Your task to perform on an android device: open app "Viber Messenger" (install if not already installed) Image 0: 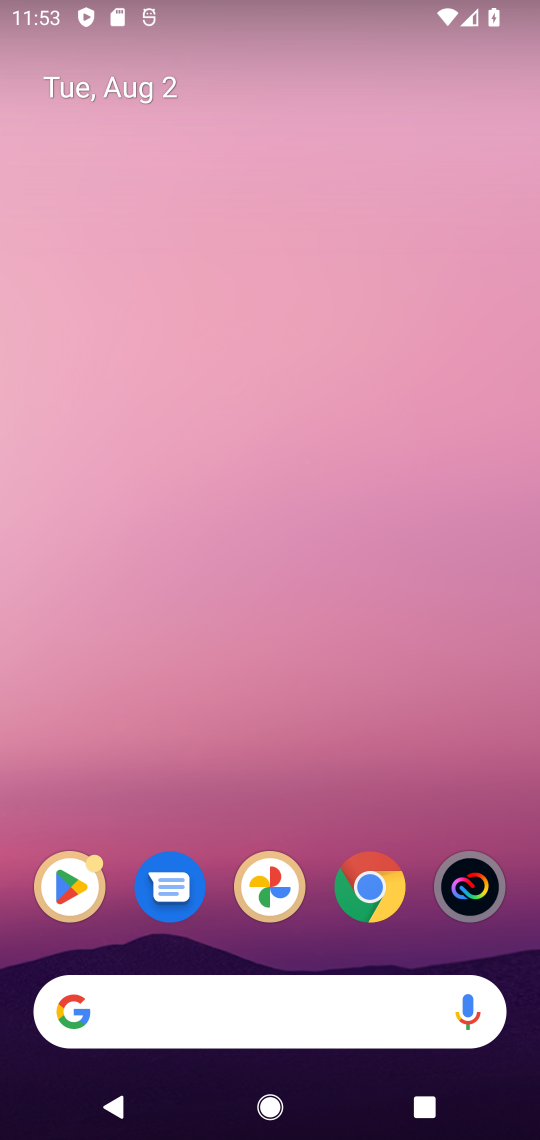
Step 0: click (79, 889)
Your task to perform on an android device: open app "Viber Messenger" (install if not already installed) Image 1: 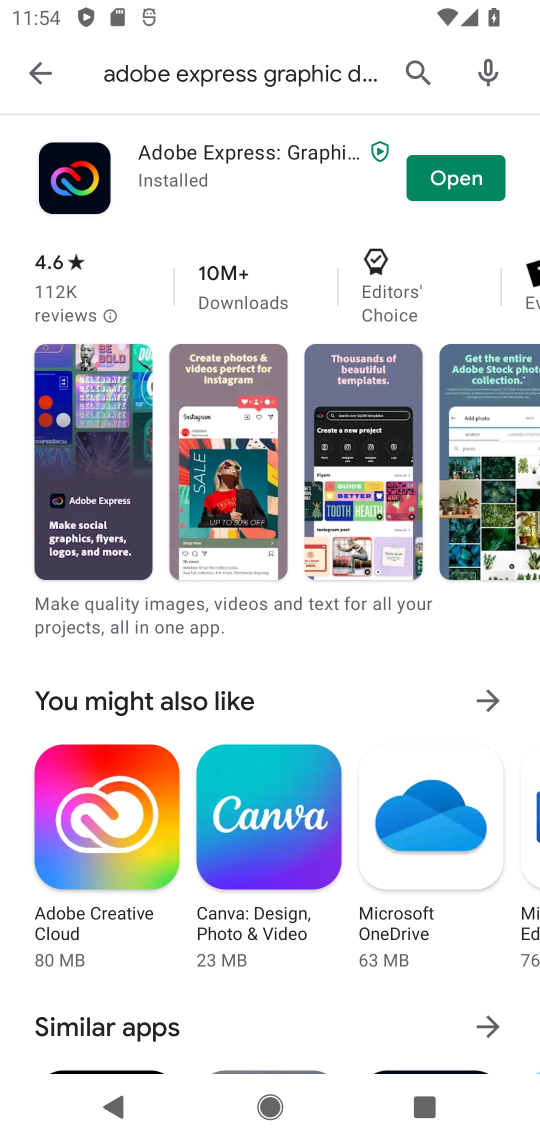
Step 1: click (420, 59)
Your task to perform on an android device: open app "Viber Messenger" (install if not already installed) Image 2: 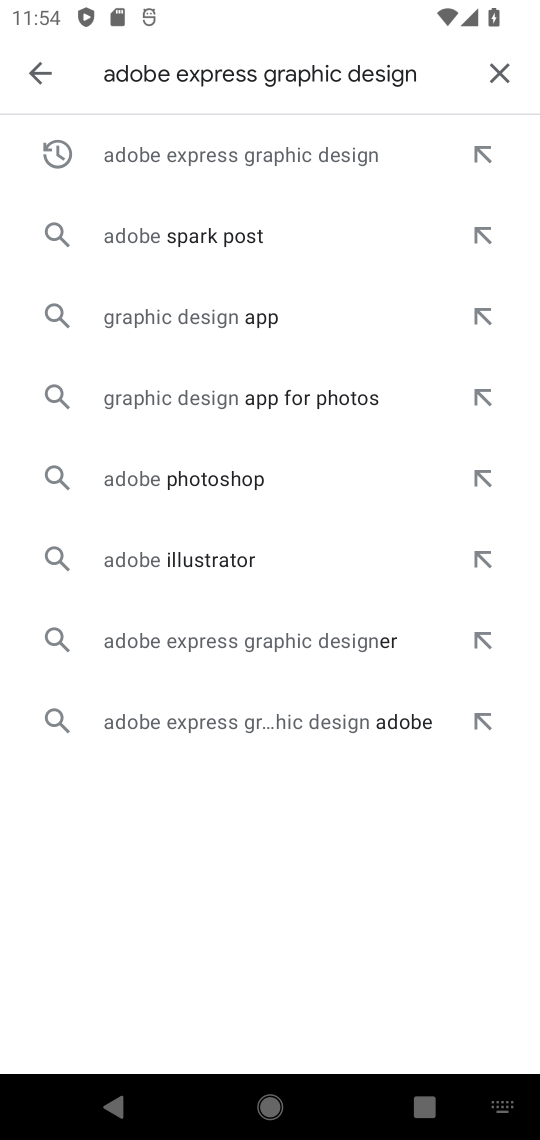
Step 2: click (500, 73)
Your task to perform on an android device: open app "Viber Messenger" (install if not already installed) Image 3: 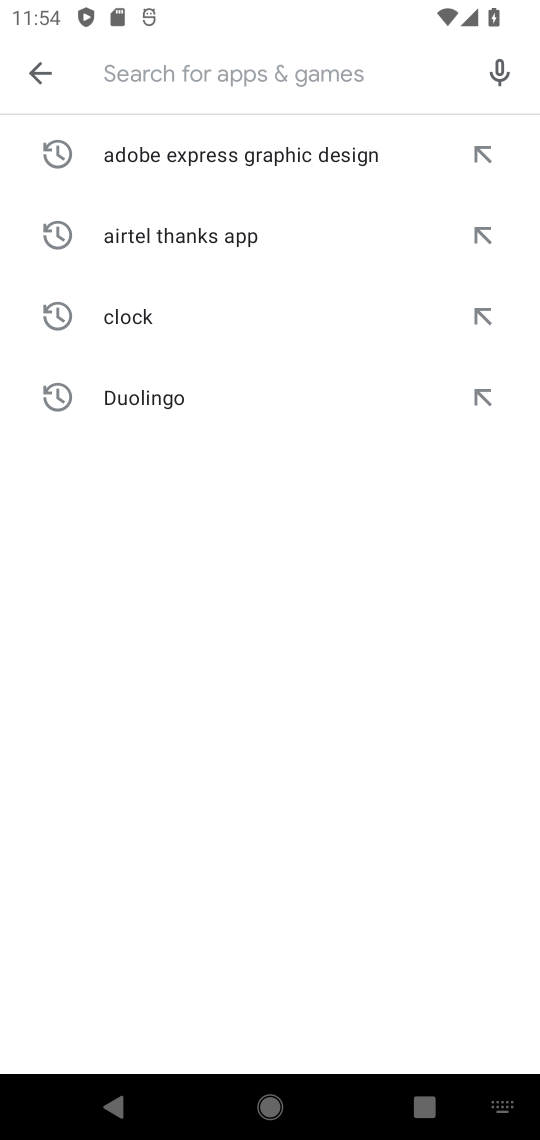
Step 3: type "viber messenger "
Your task to perform on an android device: open app "Viber Messenger" (install if not already installed) Image 4: 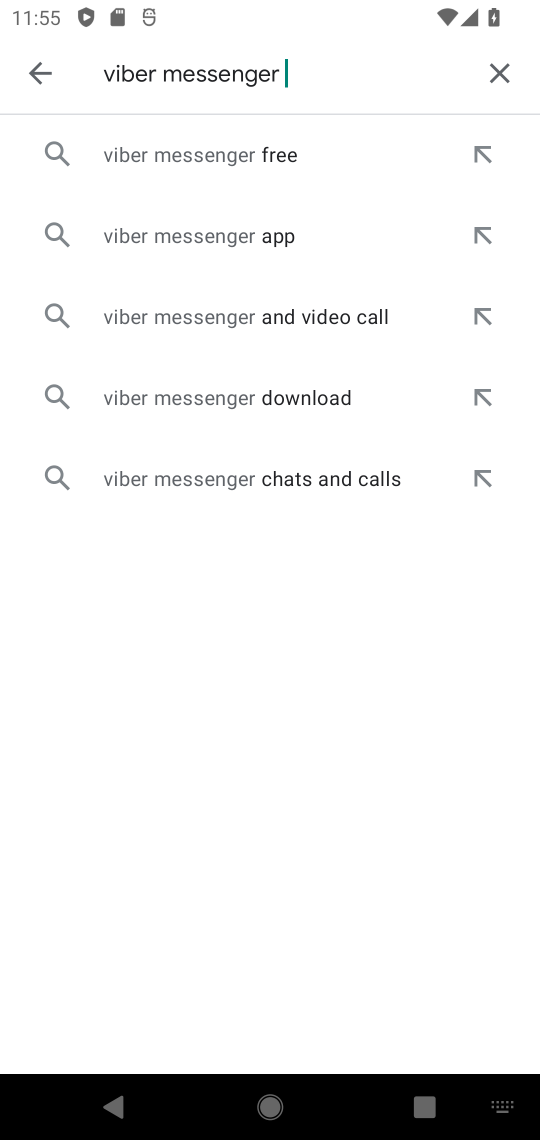
Step 4: press enter
Your task to perform on an android device: open app "Viber Messenger" (install if not already installed) Image 5: 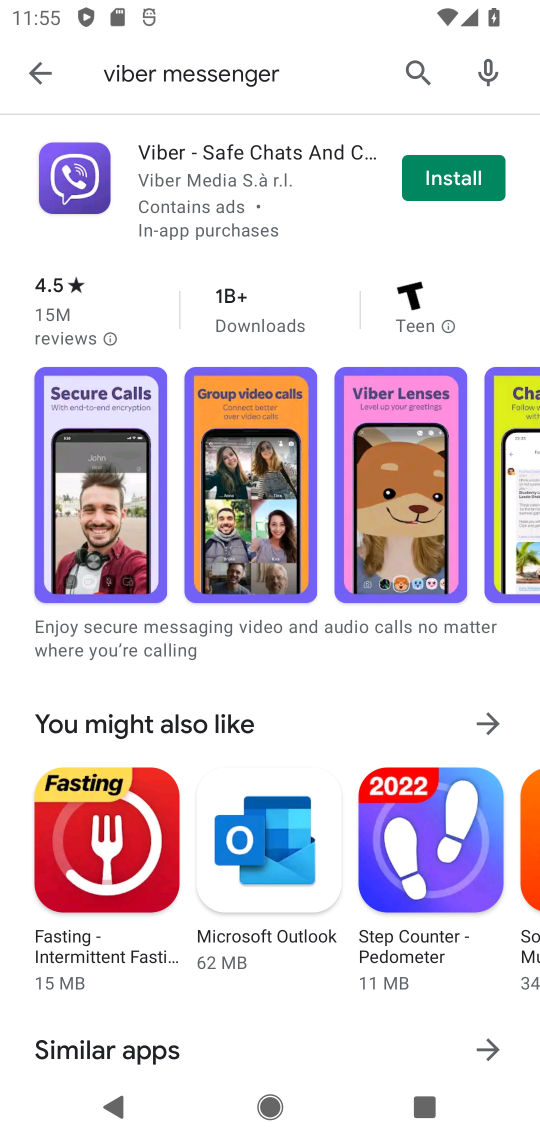
Step 5: click (437, 172)
Your task to perform on an android device: open app "Viber Messenger" (install if not already installed) Image 6: 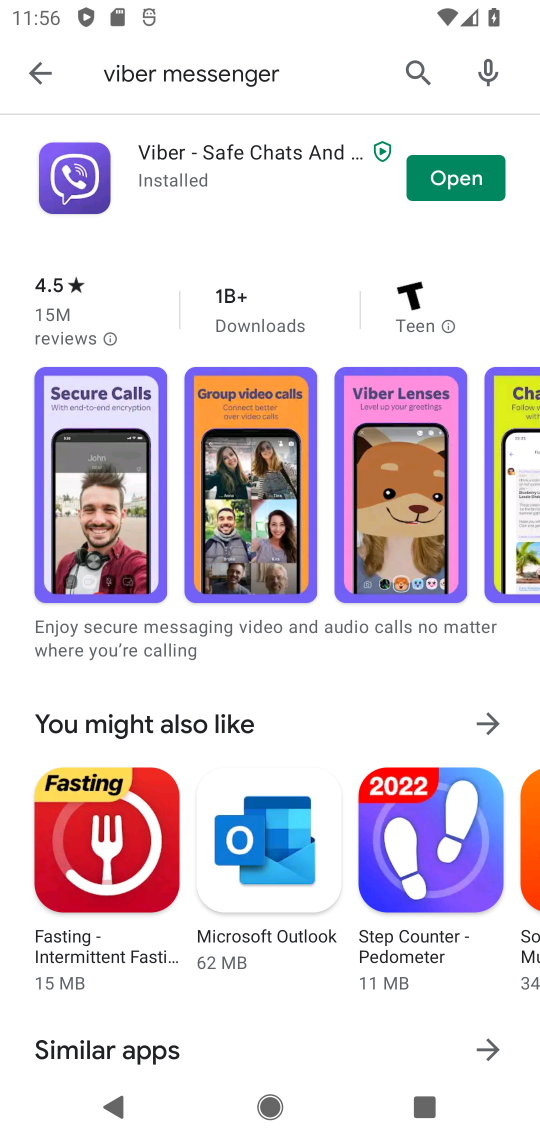
Step 6: click (479, 167)
Your task to perform on an android device: open app "Viber Messenger" (install if not already installed) Image 7: 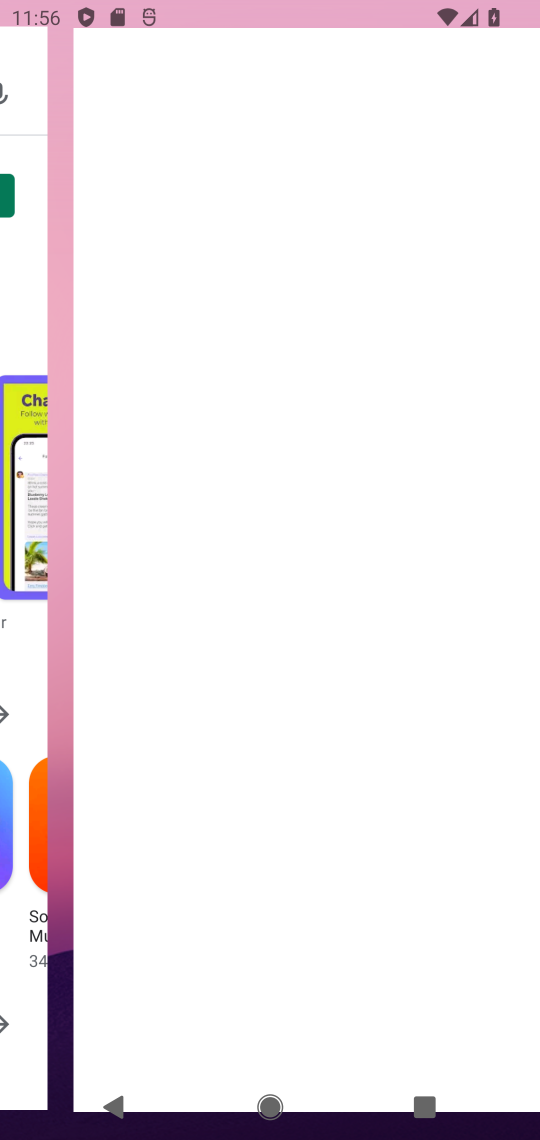
Step 7: task complete